Your task to perform on an android device: Open CNN.com Image 0: 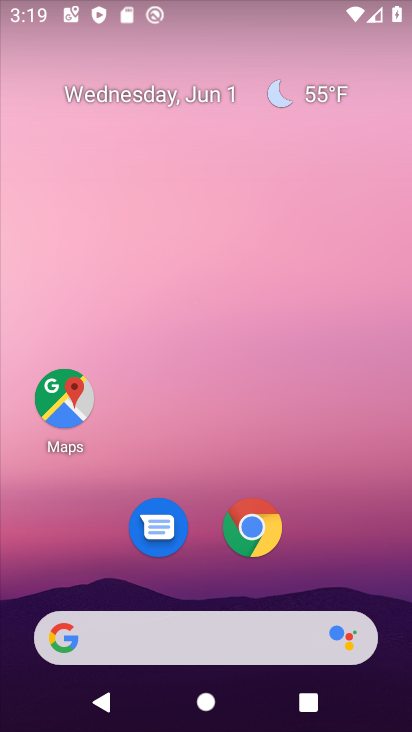
Step 0: press home button
Your task to perform on an android device: Open CNN.com Image 1: 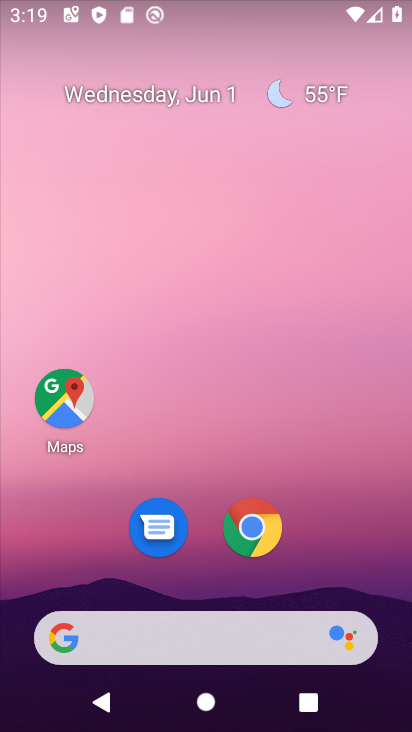
Step 1: click (245, 535)
Your task to perform on an android device: Open CNN.com Image 2: 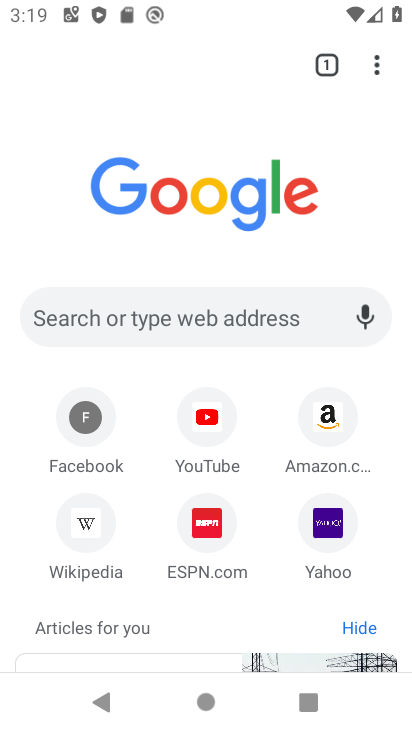
Step 2: click (184, 316)
Your task to perform on an android device: Open CNN.com Image 3: 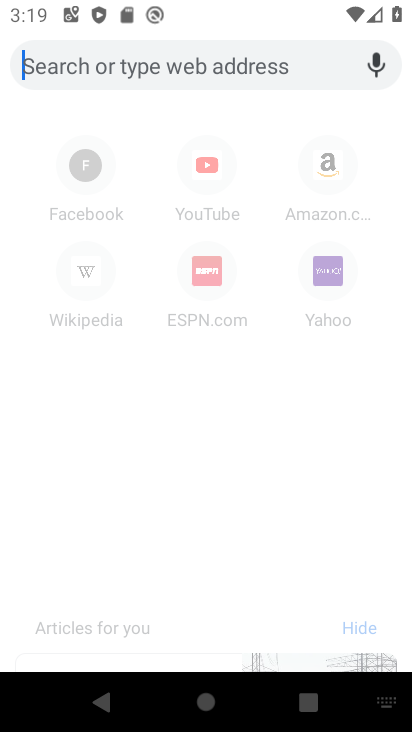
Step 3: type " CNN.com"
Your task to perform on an android device: Open CNN.com Image 4: 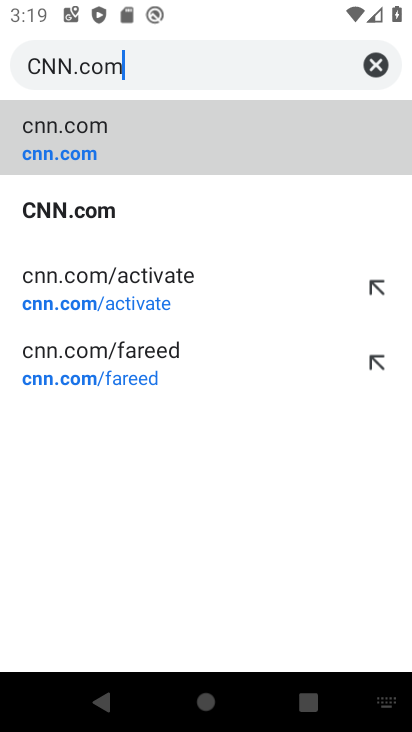
Step 4: click (351, 126)
Your task to perform on an android device: Open CNN.com Image 5: 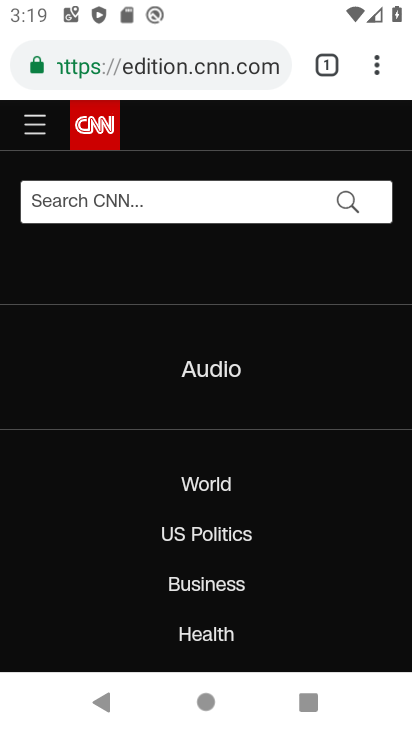
Step 5: task complete